Your task to perform on an android device: change text size in settings app Image 0: 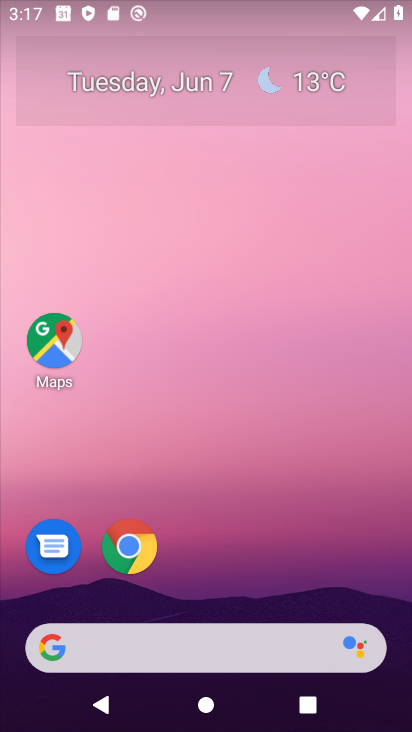
Step 0: drag from (202, 596) to (183, 242)
Your task to perform on an android device: change text size in settings app Image 1: 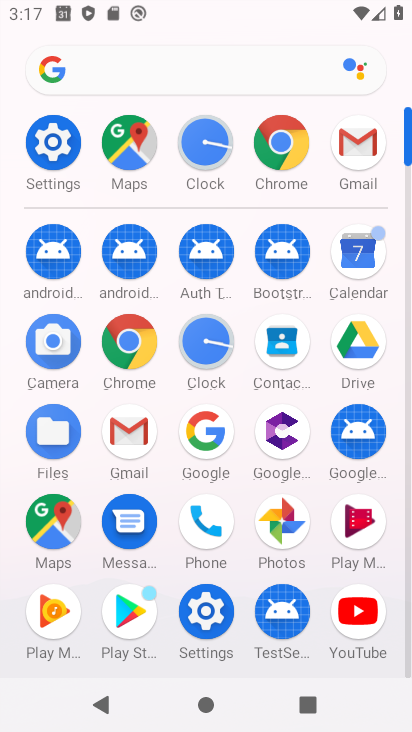
Step 1: click (65, 167)
Your task to perform on an android device: change text size in settings app Image 2: 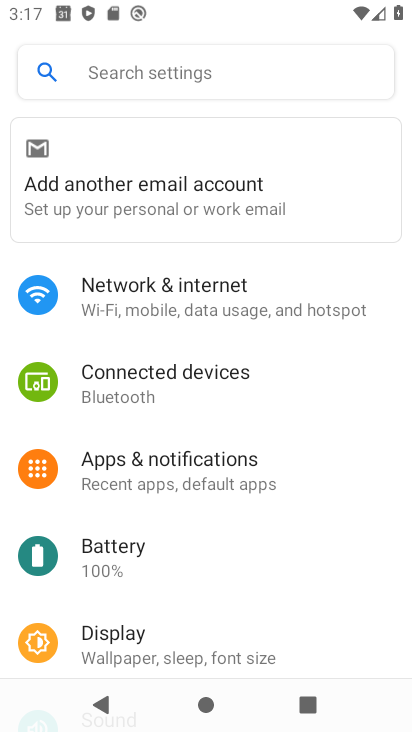
Step 2: drag from (187, 567) to (188, 239)
Your task to perform on an android device: change text size in settings app Image 3: 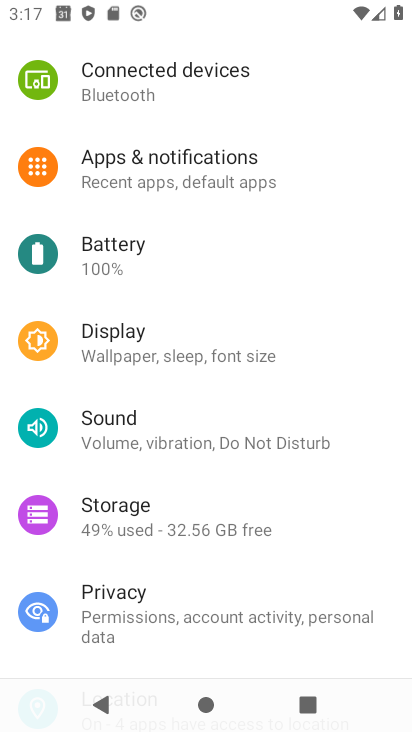
Step 3: drag from (113, 585) to (170, 210)
Your task to perform on an android device: change text size in settings app Image 4: 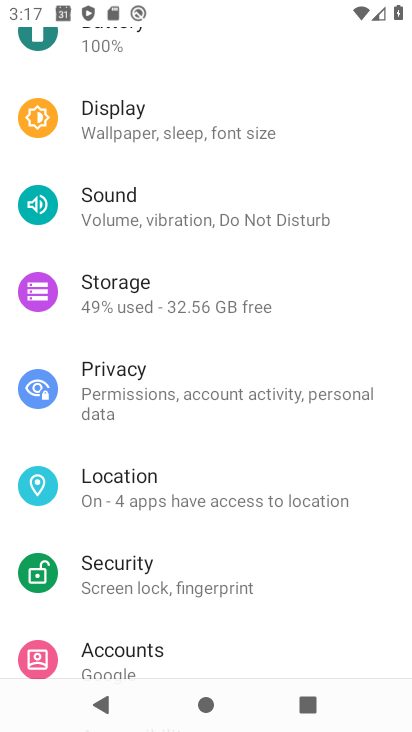
Step 4: drag from (158, 570) to (226, 27)
Your task to perform on an android device: change text size in settings app Image 5: 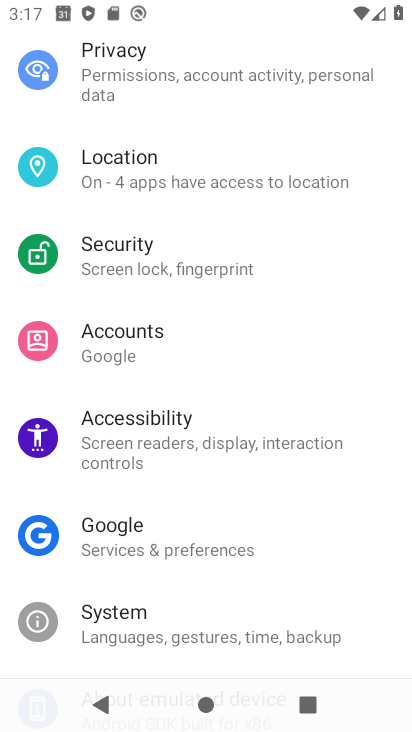
Step 5: drag from (103, 557) to (98, 328)
Your task to perform on an android device: change text size in settings app Image 6: 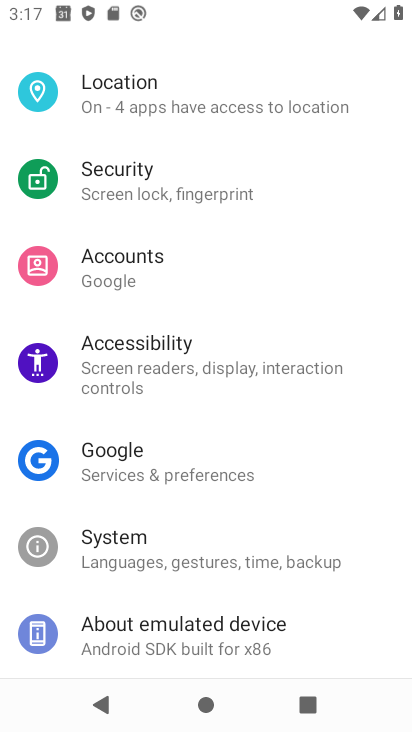
Step 6: drag from (174, 152) to (172, 580)
Your task to perform on an android device: change text size in settings app Image 7: 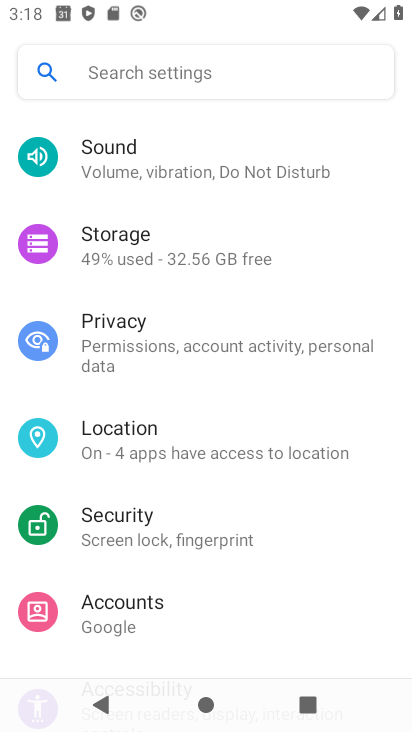
Step 7: drag from (135, 223) to (158, 491)
Your task to perform on an android device: change text size in settings app Image 8: 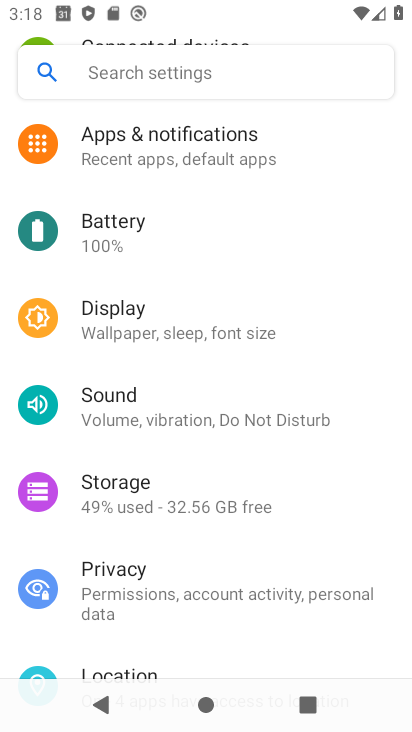
Step 8: click (128, 320)
Your task to perform on an android device: change text size in settings app Image 9: 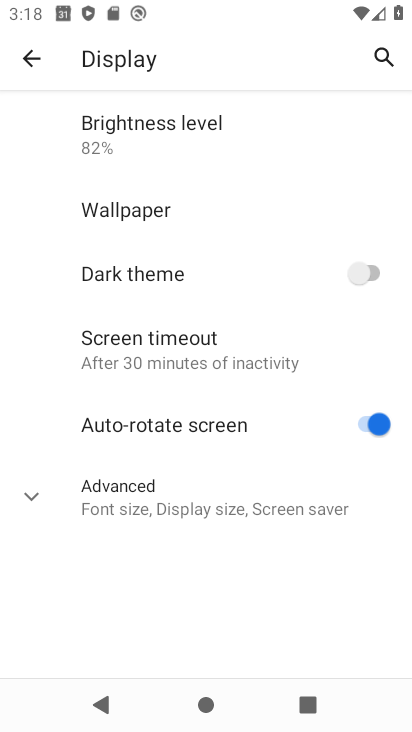
Step 9: click (207, 500)
Your task to perform on an android device: change text size in settings app Image 10: 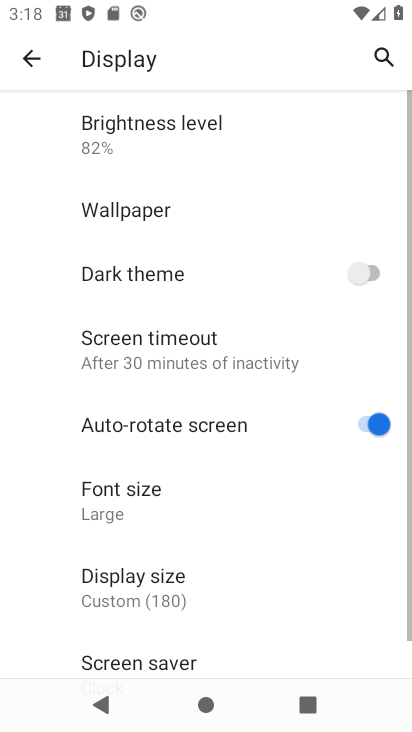
Step 10: click (207, 500)
Your task to perform on an android device: change text size in settings app Image 11: 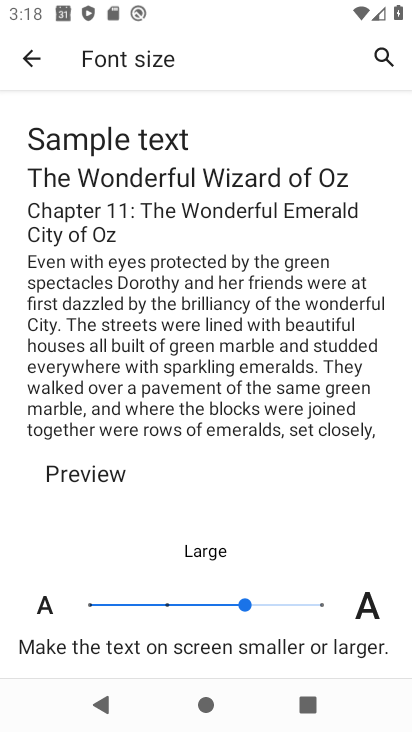
Step 11: click (89, 608)
Your task to perform on an android device: change text size in settings app Image 12: 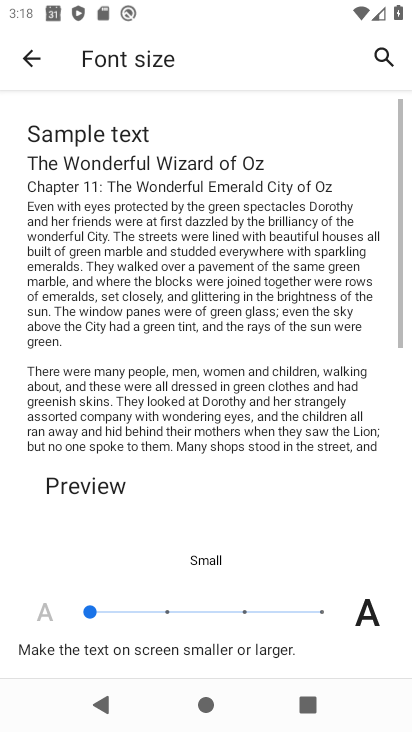
Step 12: task complete